Your task to perform on an android device: toggle sleep mode Image 0: 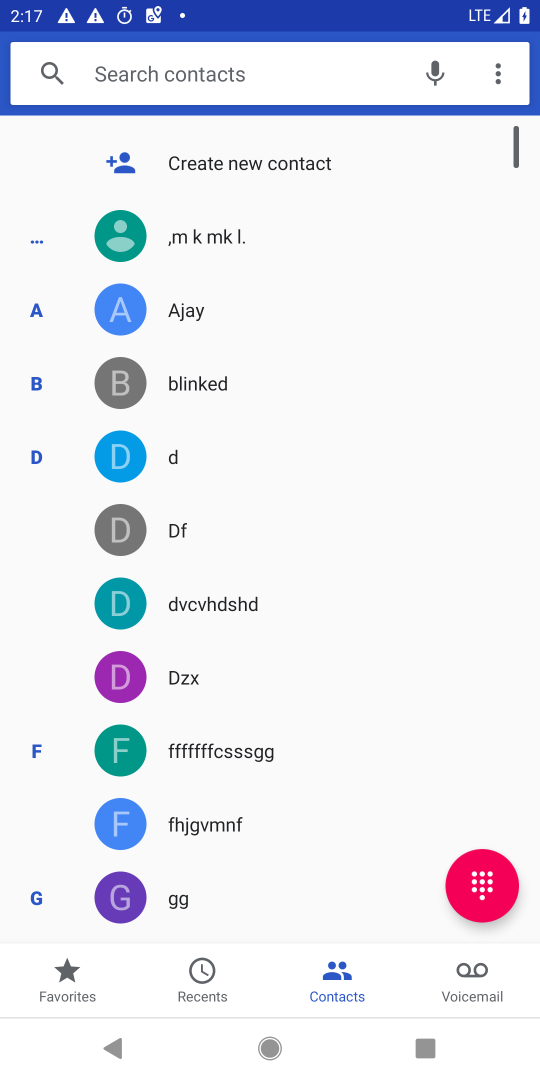
Step 0: press home button
Your task to perform on an android device: toggle sleep mode Image 1: 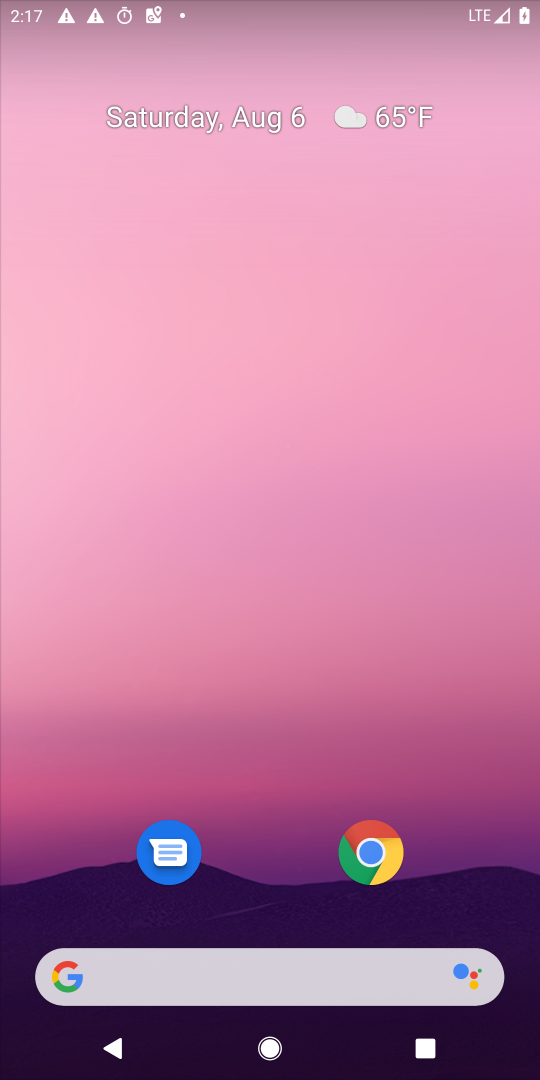
Step 1: drag from (371, 946) to (341, 274)
Your task to perform on an android device: toggle sleep mode Image 2: 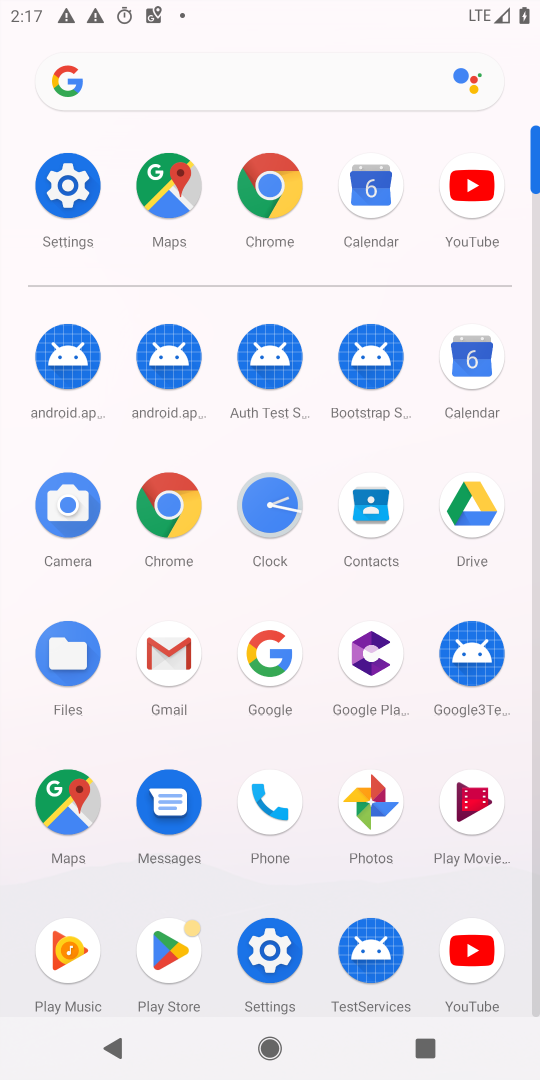
Step 2: click (63, 197)
Your task to perform on an android device: toggle sleep mode Image 3: 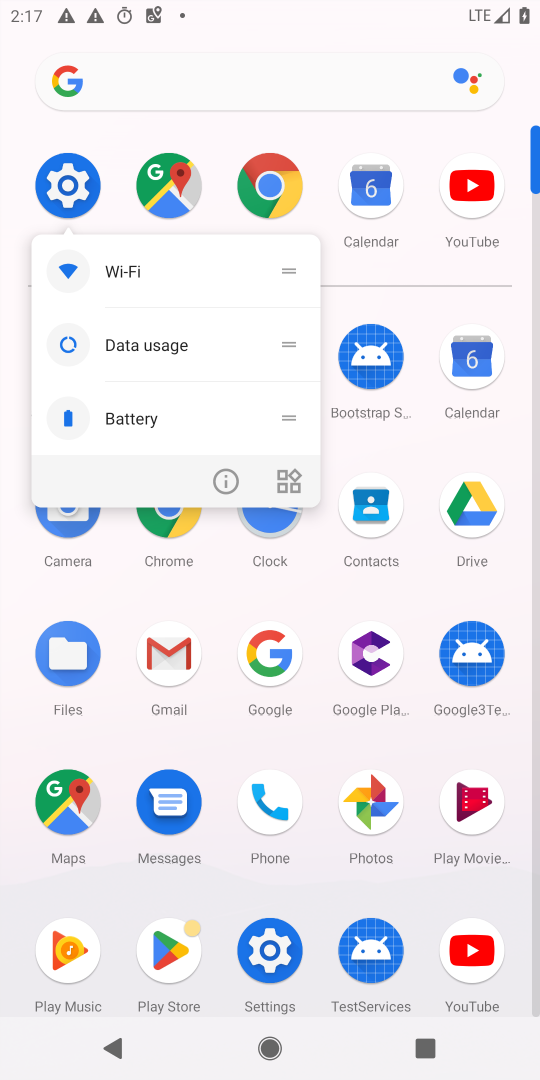
Step 3: click (65, 203)
Your task to perform on an android device: toggle sleep mode Image 4: 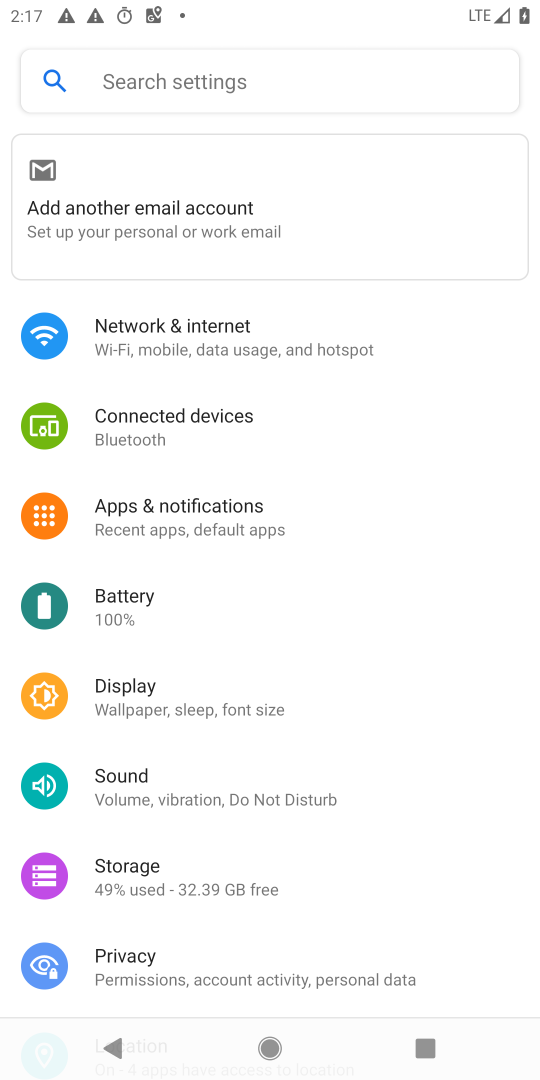
Step 4: click (185, 79)
Your task to perform on an android device: toggle sleep mode Image 5: 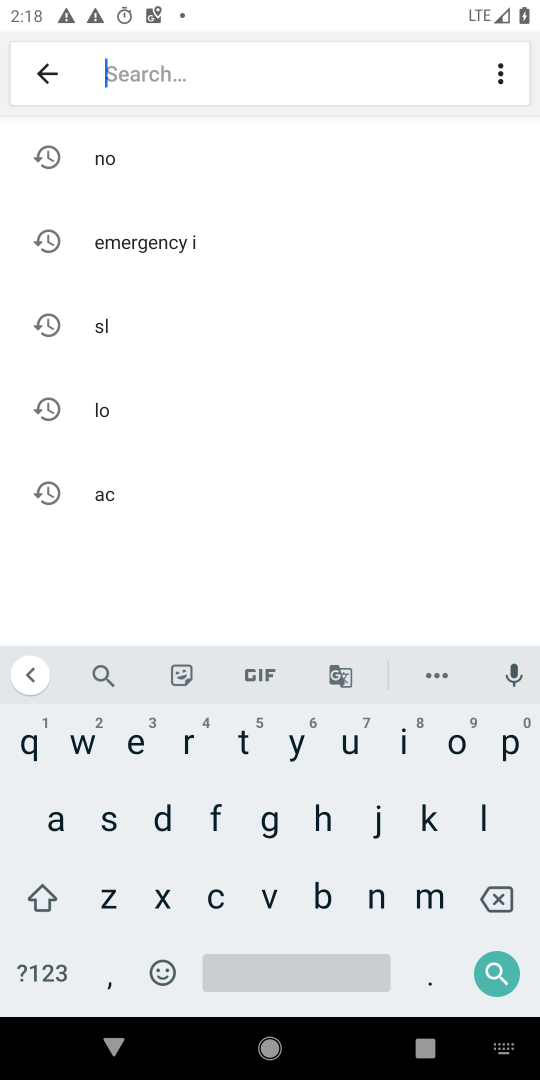
Step 5: click (125, 329)
Your task to perform on an android device: toggle sleep mode Image 6: 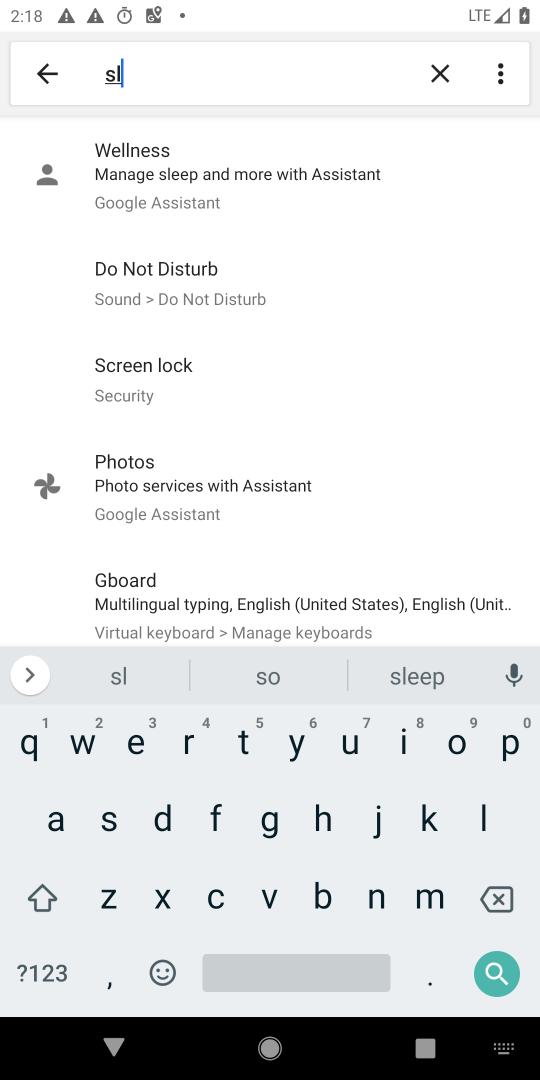
Step 6: click (154, 285)
Your task to perform on an android device: toggle sleep mode Image 7: 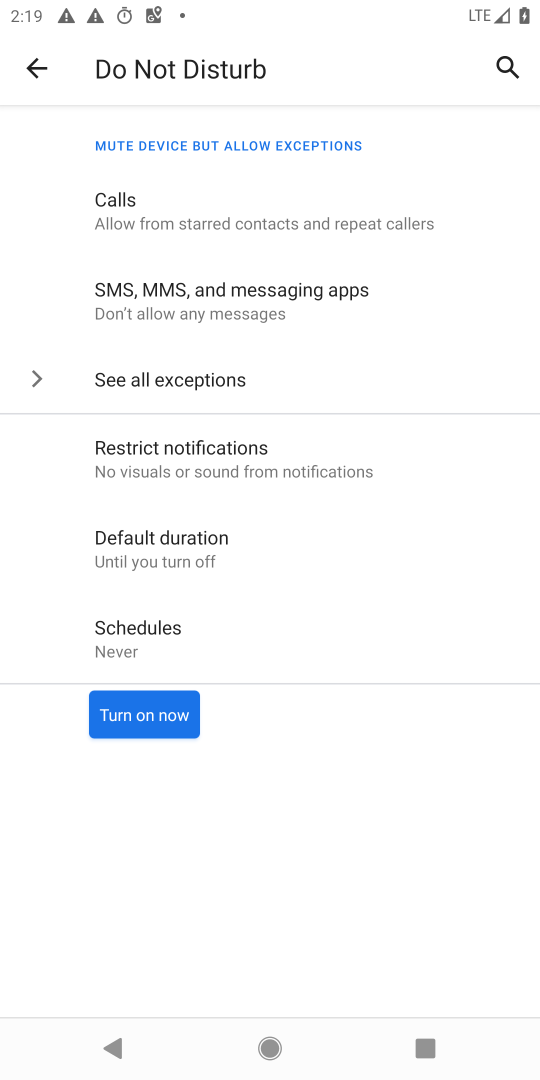
Step 7: task complete